Your task to perform on an android device: Open settings on Google Maps Image 0: 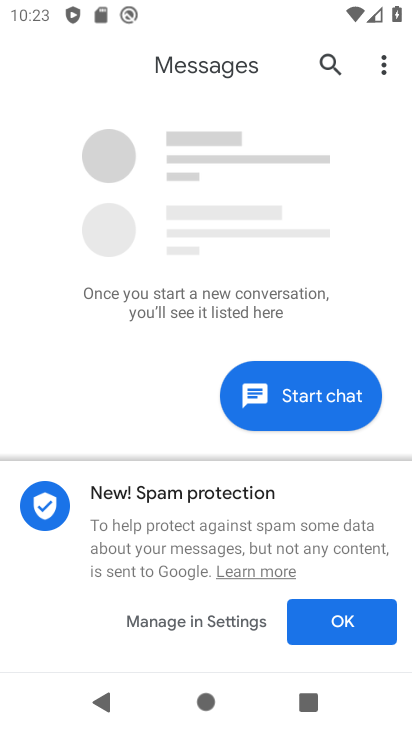
Step 0: press home button
Your task to perform on an android device: Open settings on Google Maps Image 1: 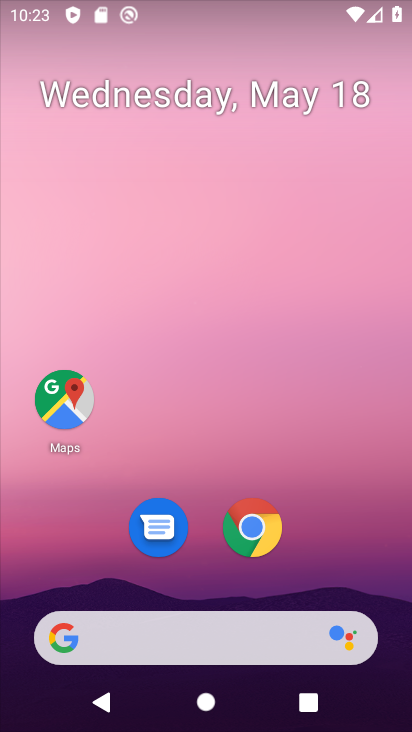
Step 1: click (68, 411)
Your task to perform on an android device: Open settings on Google Maps Image 2: 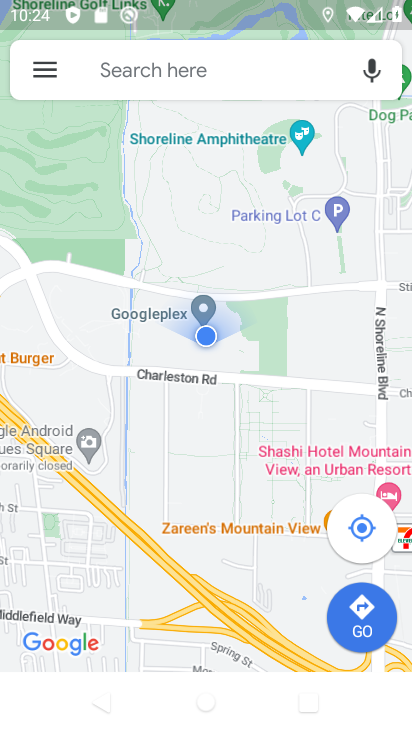
Step 2: click (33, 80)
Your task to perform on an android device: Open settings on Google Maps Image 3: 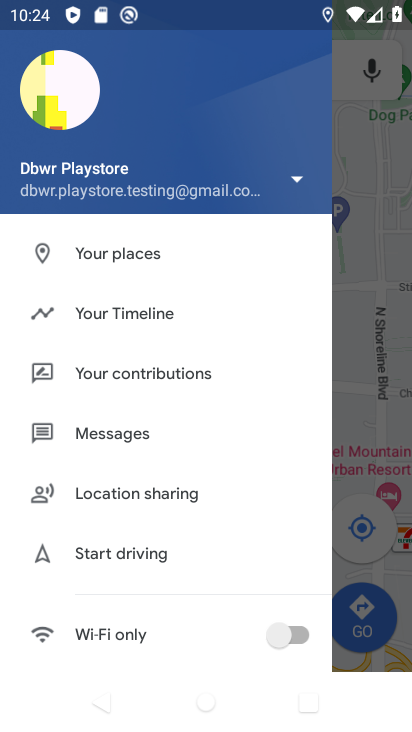
Step 3: drag from (120, 617) to (125, 183)
Your task to perform on an android device: Open settings on Google Maps Image 4: 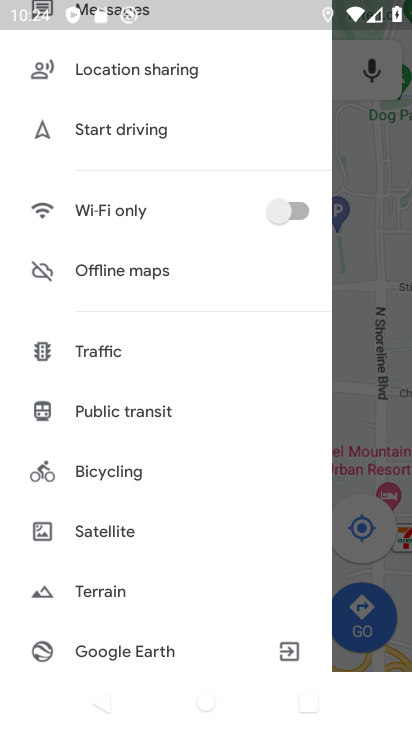
Step 4: drag from (189, 567) to (176, 226)
Your task to perform on an android device: Open settings on Google Maps Image 5: 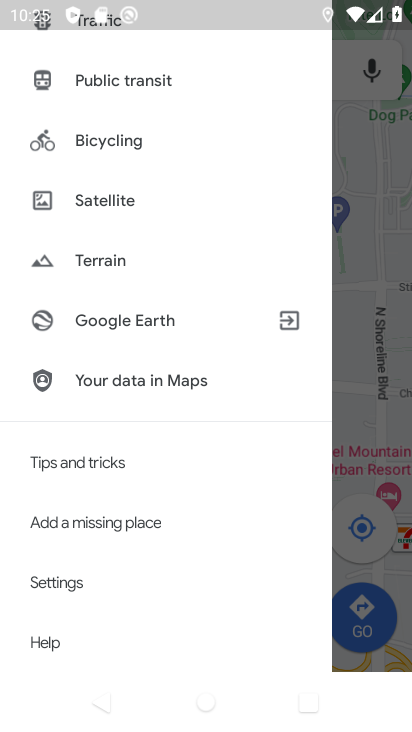
Step 5: click (185, 599)
Your task to perform on an android device: Open settings on Google Maps Image 6: 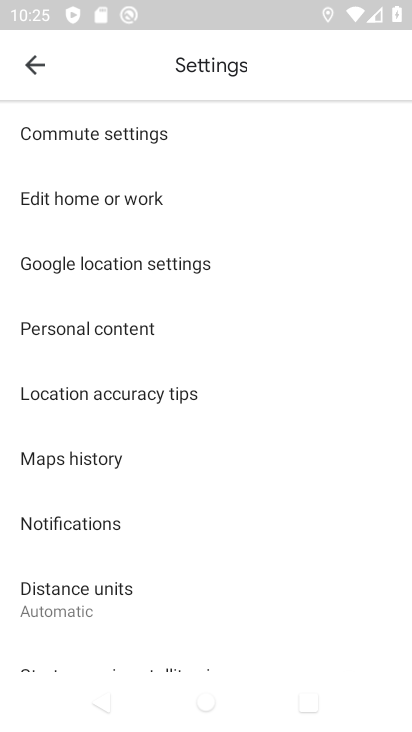
Step 6: task complete